Your task to perform on an android device: Open the calendar app, open the side menu, and click the "Day" option Image 0: 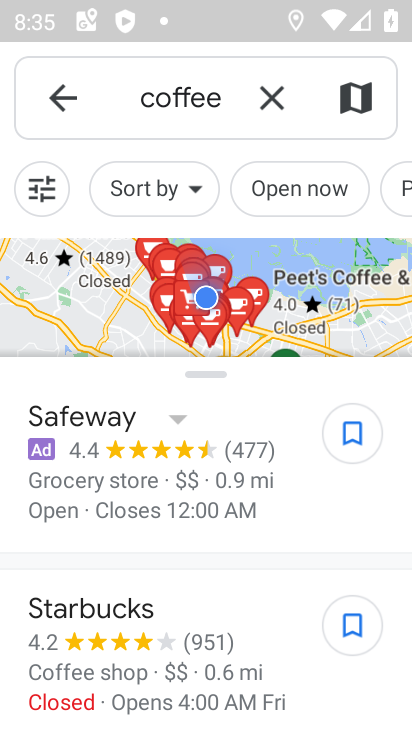
Step 0: press home button
Your task to perform on an android device: Open the calendar app, open the side menu, and click the "Day" option Image 1: 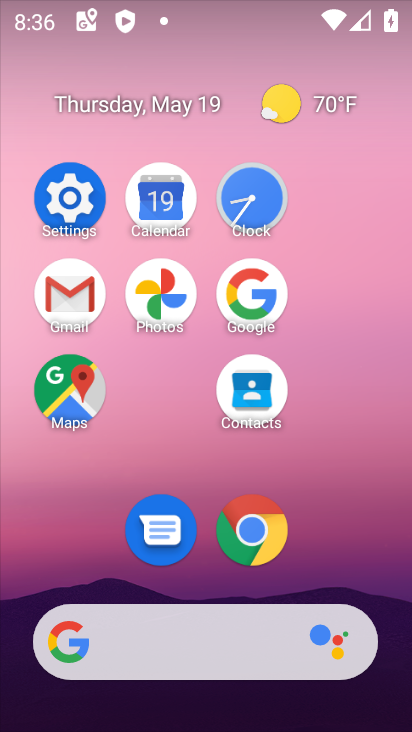
Step 1: click (165, 208)
Your task to perform on an android device: Open the calendar app, open the side menu, and click the "Day" option Image 2: 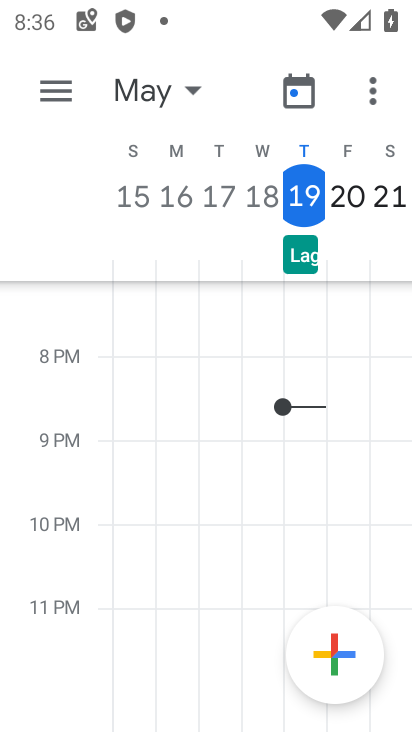
Step 2: click (75, 88)
Your task to perform on an android device: Open the calendar app, open the side menu, and click the "Day" option Image 3: 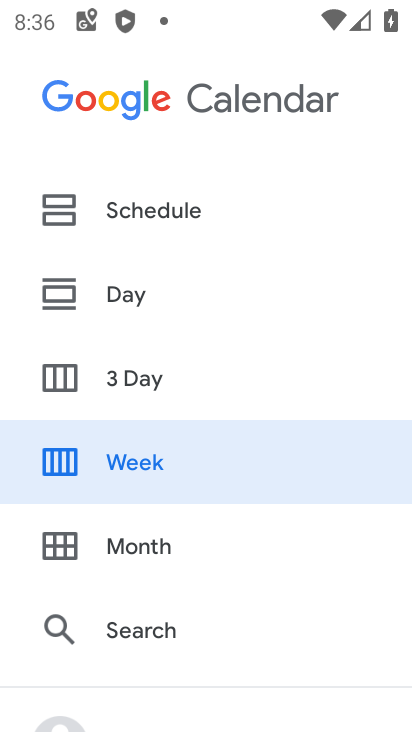
Step 3: click (150, 313)
Your task to perform on an android device: Open the calendar app, open the side menu, and click the "Day" option Image 4: 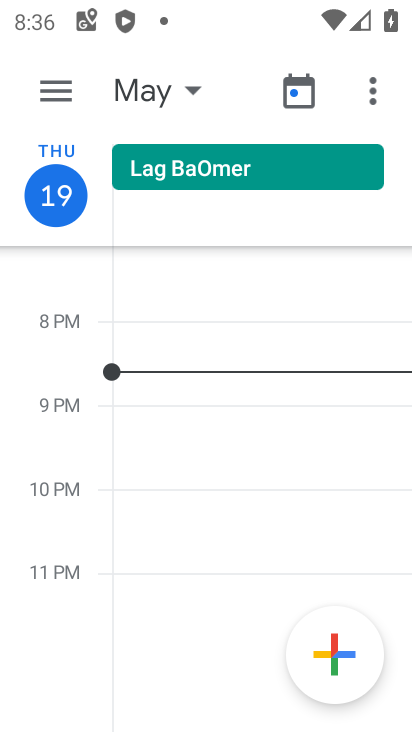
Step 4: task complete